Your task to perform on an android device: toggle javascript in the chrome app Image 0: 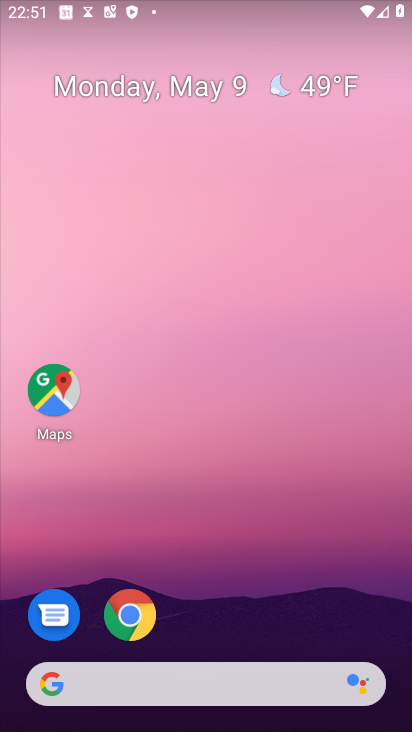
Step 0: click (135, 619)
Your task to perform on an android device: toggle javascript in the chrome app Image 1: 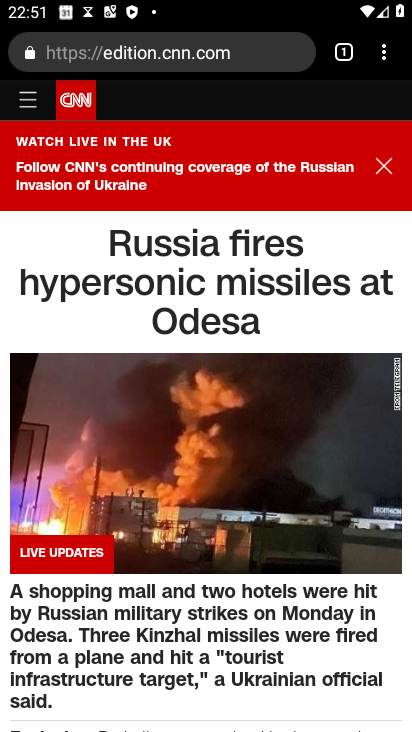
Step 1: drag from (386, 53) to (232, 630)
Your task to perform on an android device: toggle javascript in the chrome app Image 2: 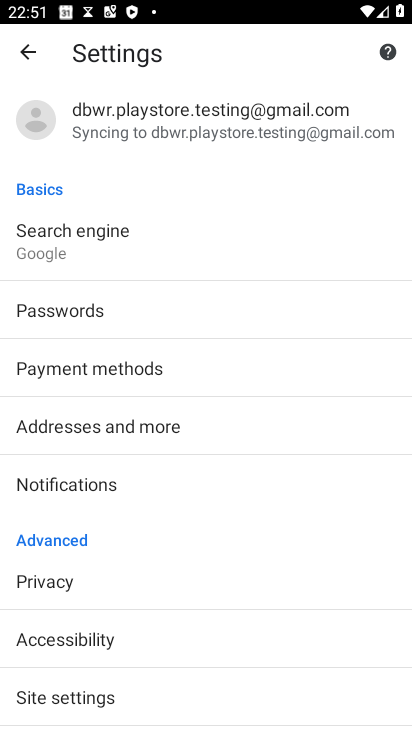
Step 2: click (99, 696)
Your task to perform on an android device: toggle javascript in the chrome app Image 3: 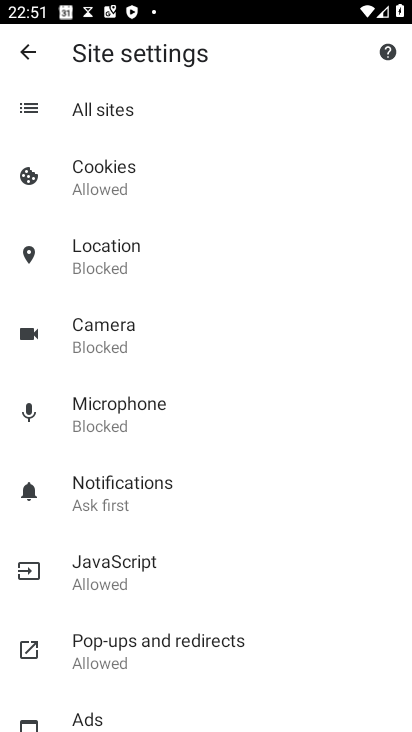
Step 3: click (160, 563)
Your task to perform on an android device: toggle javascript in the chrome app Image 4: 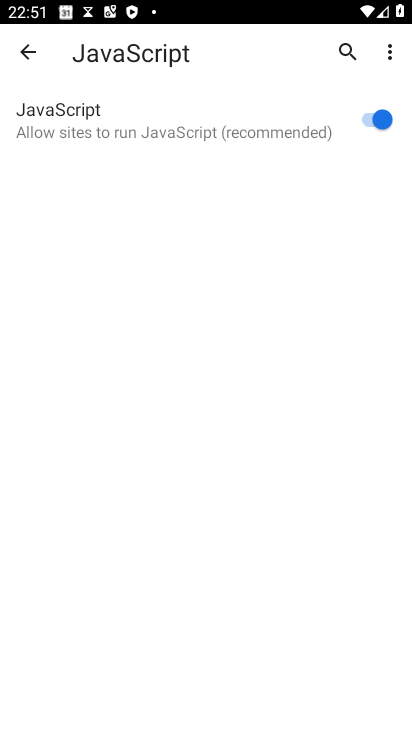
Step 4: task complete